Your task to perform on an android device: toggle javascript in the chrome app Image 0: 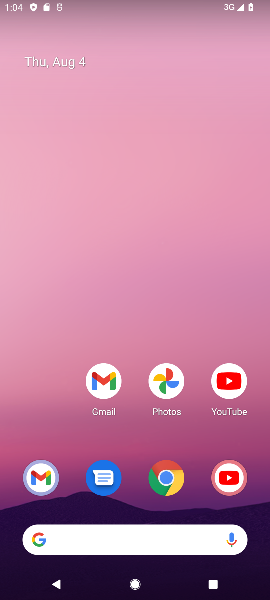
Step 0: click (161, 462)
Your task to perform on an android device: toggle javascript in the chrome app Image 1: 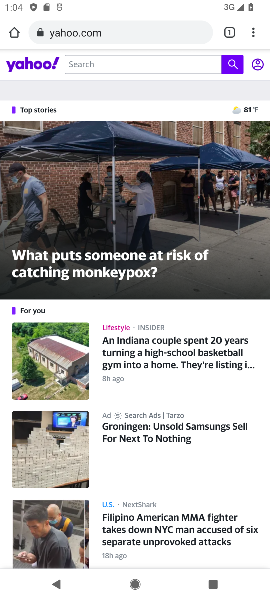
Step 1: drag from (255, 21) to (153, 439)
Your task to perform on an android device: toggle javascript in the chrome app Image 2: 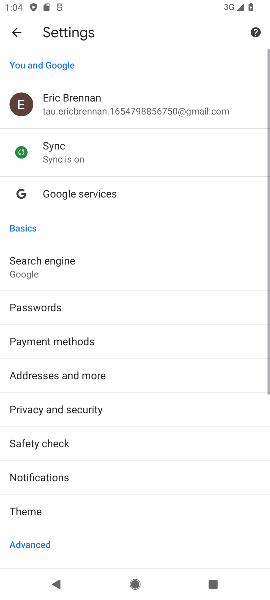
Step 2: drag from (61, 494) to (47, 230)
Your task to perform on an android device: toggle javascript in the chrome app Image 3: 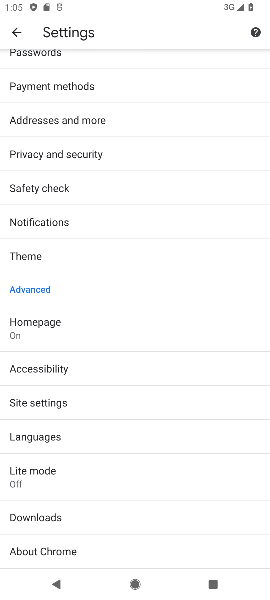
Step 3: click (94, 402)
Your task to perform on an android device: toggle javascript in the chrome app Image 4: 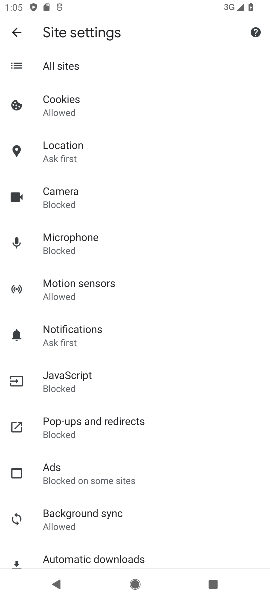
Step 4: click (32, 380)
Your task to perform on an android device: toggle javascript in the chrome app Image 5: 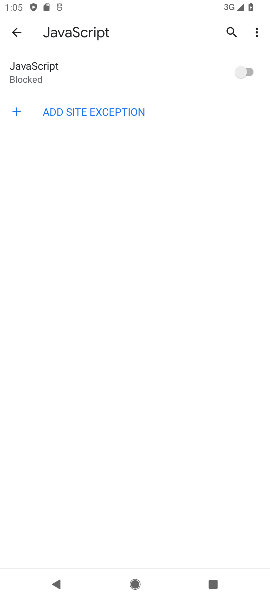
Step 5: task complete